Your task to perform on an android device: turn on translation in the chrome app Image 0: 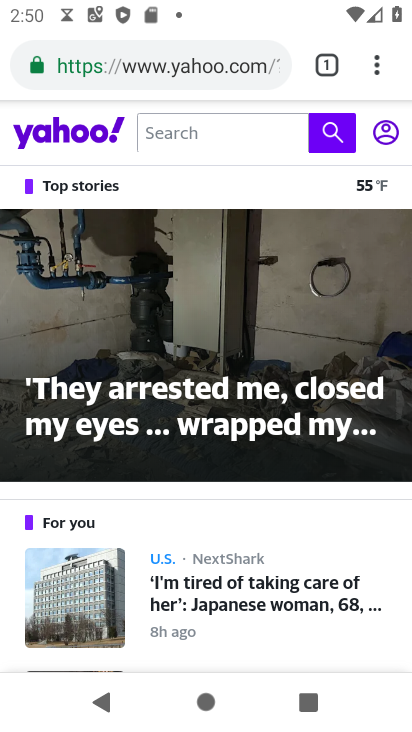
Step 0: press home button
Your task to perform on an android device: turn on translation in the chrome app Image 1: 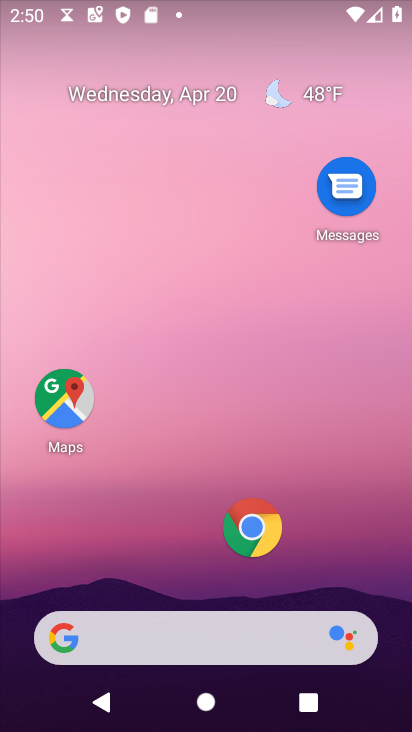
Step 1: drag from (212, 604) to (365, 30)
Your task to perform on an android device: turn on translation in the chrome app Image 2: 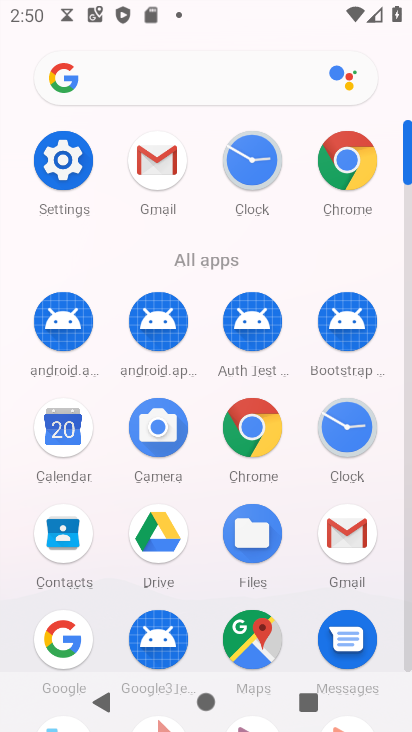
Step 2: click (357, 172)
Your task to perform on an android device: turn on translation in the chrome app Image 3: 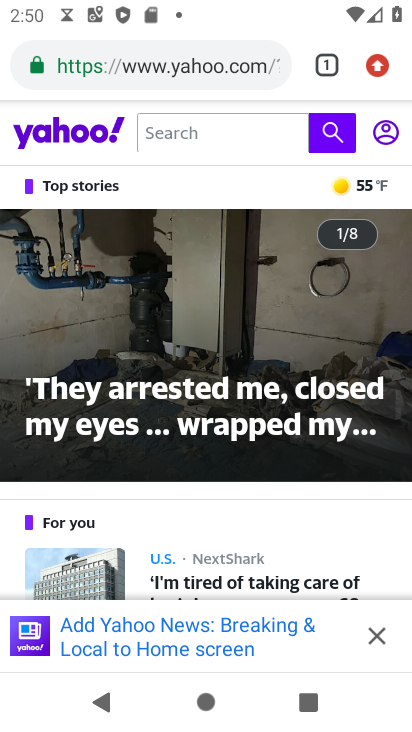
Step 3: click (383, 79)
Your task to perform on an android device: turn on translation in the chrome app Image 4: 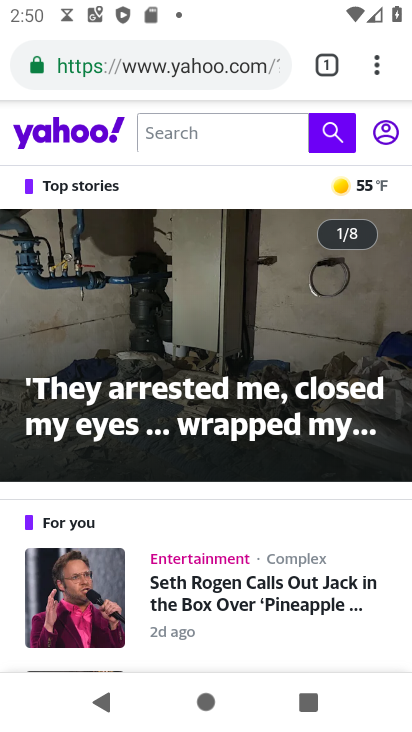
Step 4: click (377, 69)
Your task to perform on an android device: turn on translation in the chrome app Image 5: 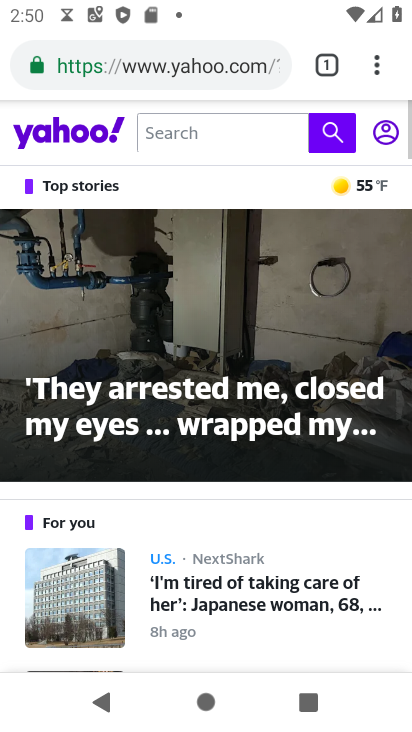
Step 5: click (375, 74)
Your task to perform on an android device: turn on translation in the chrome app Image 6: 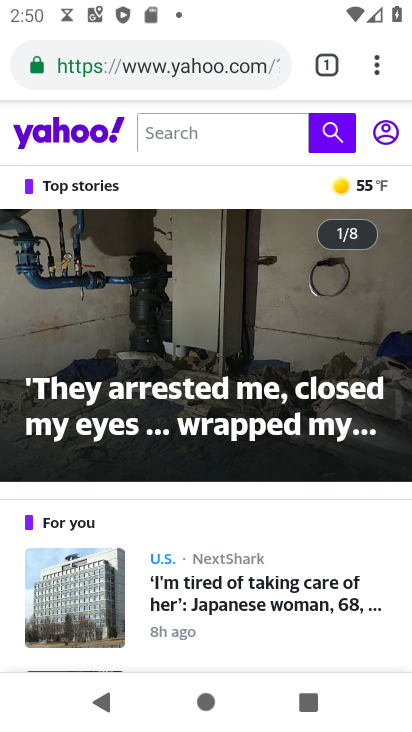
Step 6: click (370, 80)
Your task to perform on an android device: turn on translation in the chrome app Image 7: 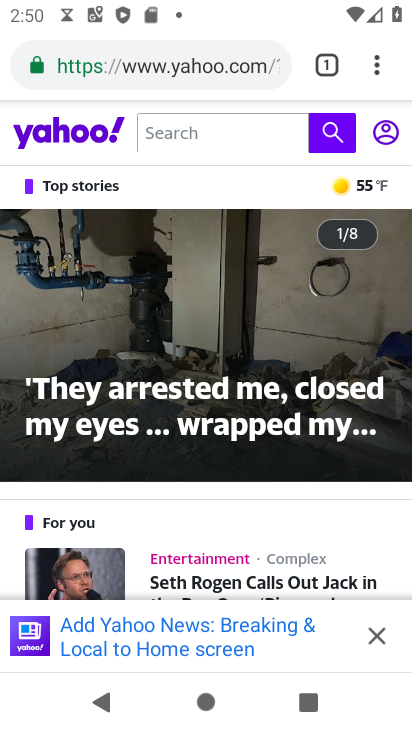
Step 7: click (368, 72)
Your task to perform on an android device: turn on translation in the chrome app Image 8: 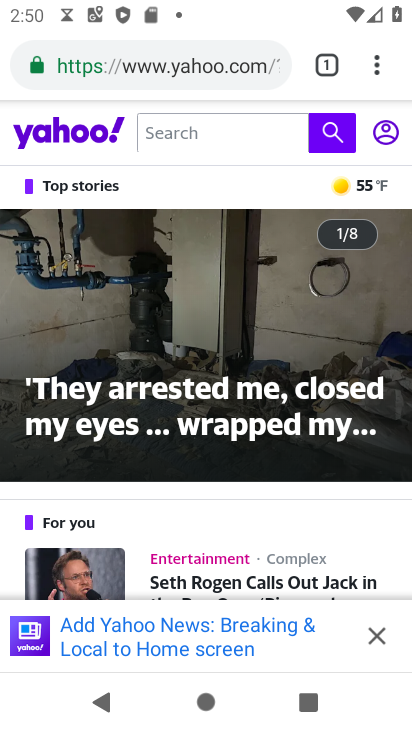
Step 8: click (368, 72)
Your task to perform on an android device: turn on translation in the chrome app Image 9: 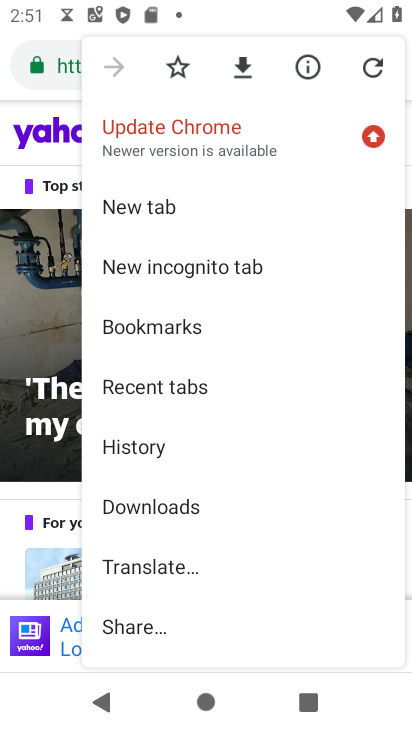
Step 9: drag from (204, 589) to (359, 109)
Your task to perform on an android device: turn on translation in the chrome app Image 10: 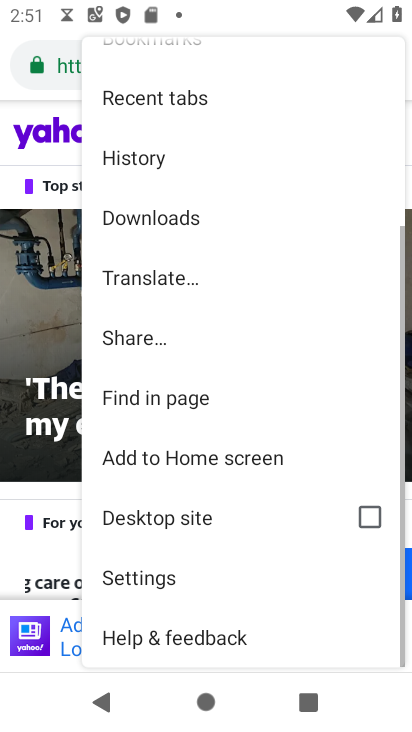
Step 10: click (153, 579)
Your task to perform on an android device: turn on translation in the chrome app Image 11: 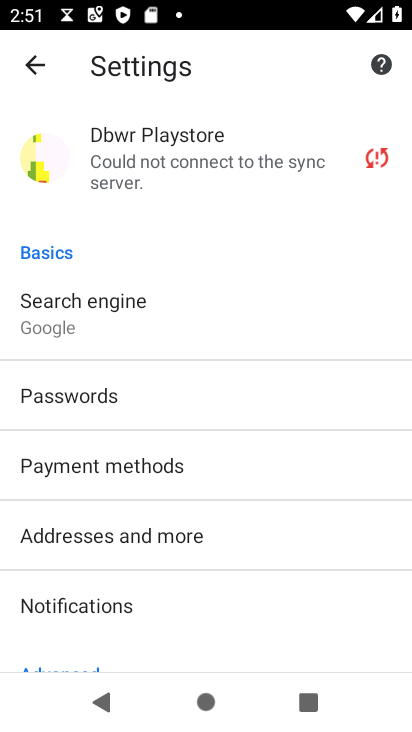
Step 11: drag from (221, 592) to (285, 163)
Your task to perform on an android device: turn on translation in the chrome app Image 12: 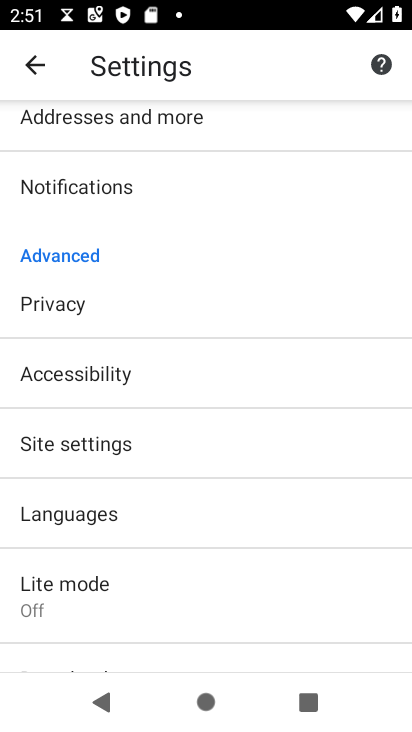
Step 12: click (121, 523)
Your task to perform on an android device: turn on translation in the chrome app Image 13: 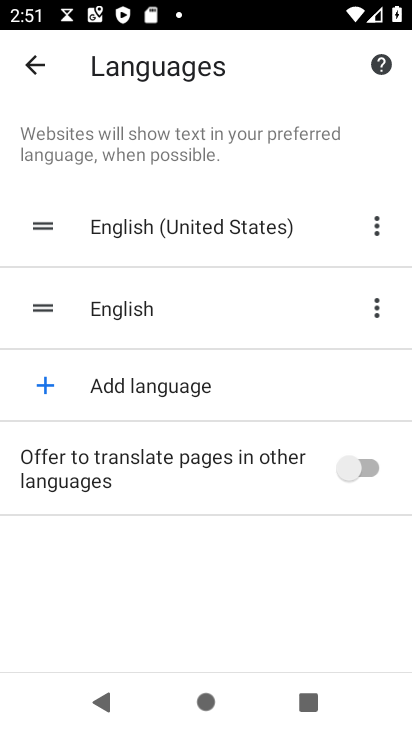
Step 13: click (364, 464)
Your task to perform on an android device: turn on translation in the chrome app Image 14: 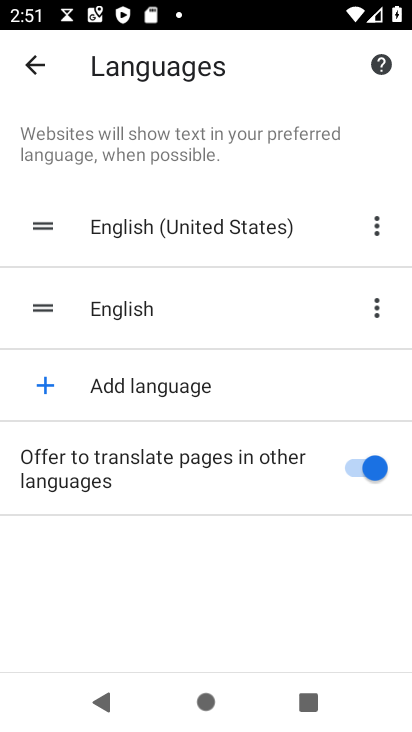
Step 14: task complete